Your task to perform on an android device: turn off notifications in google photos Image 0: 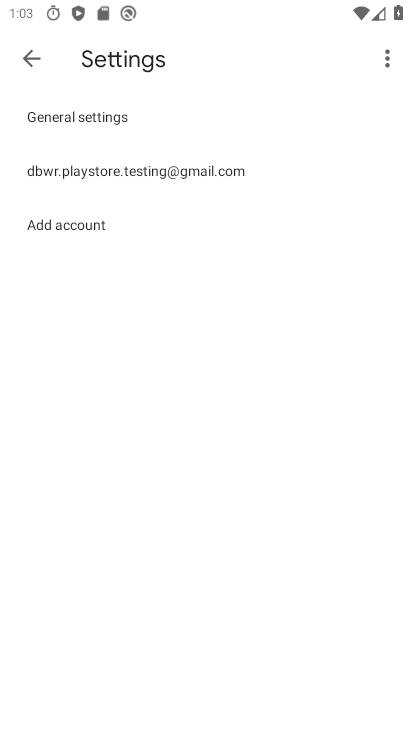
Step 0: press back button
Your task to perform on an android device: turn off notifications in google photos Image 1: 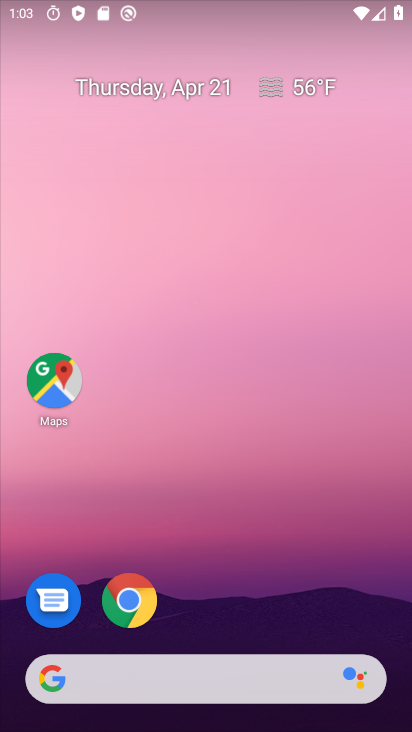
Step 1: drag from (378, 629) to (351, 227)
Your task to perform on an android device: turn off notifications in google photos Image 2: 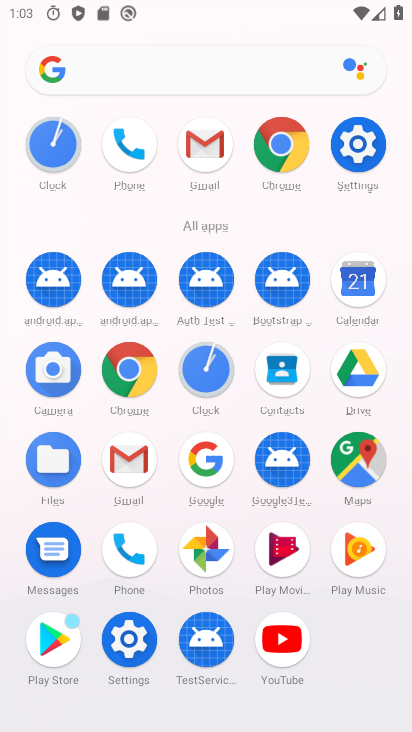
Step 2: click (192, 557)
Your task to perform on an android device: turn off notifications in google photos Image 3: 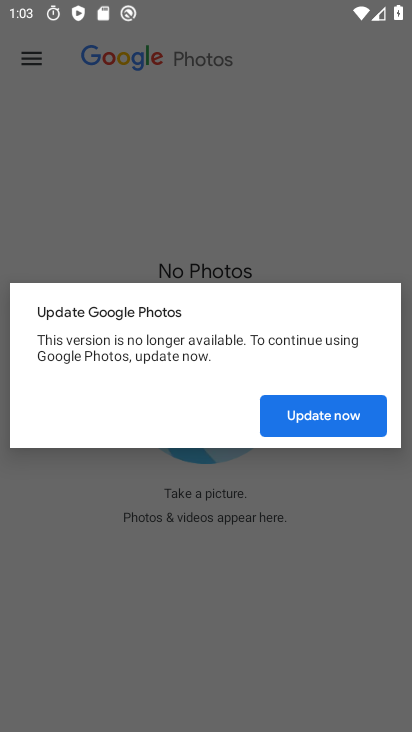
Step 3: click (322, 426)
Your task to perform on an android device: turn off notifications in google photos Image 4: 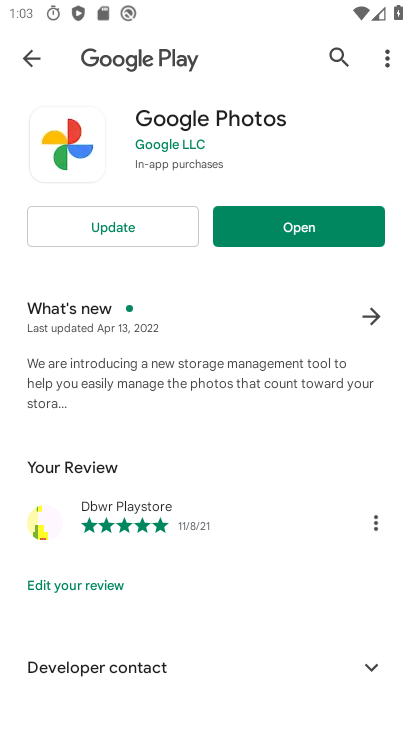
Step 4: click (148, 225)
Your task to perform on an android device: turn off notifications in google photos Image 5: 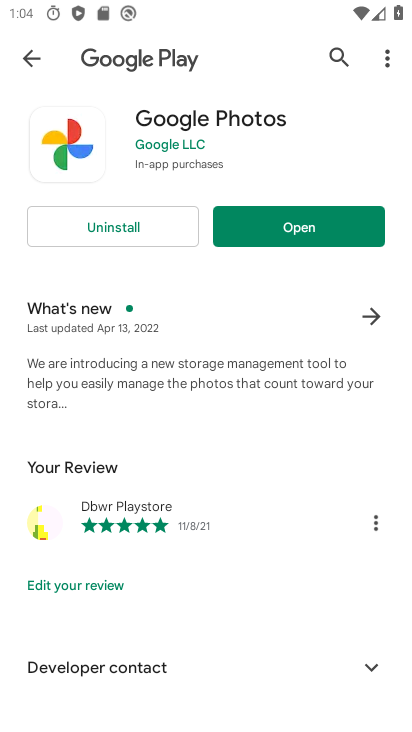
Step 5: click (260, 229)
Your task to perform on an android device: turn off notifications in google photos Image 6: 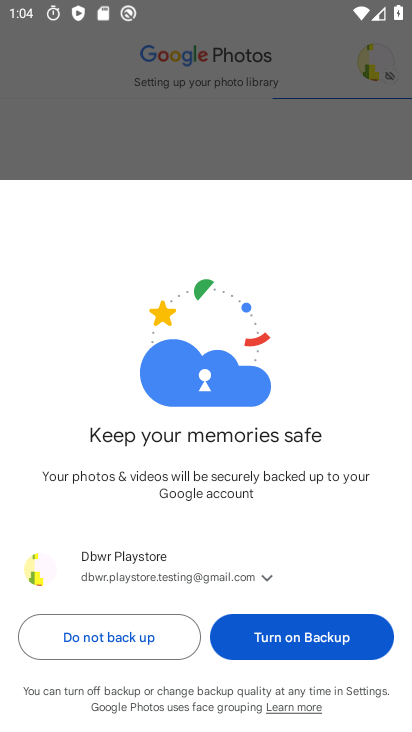
Step 6: press back button
Your task to perform on an android device: turn off notifications in google photos Image 7: 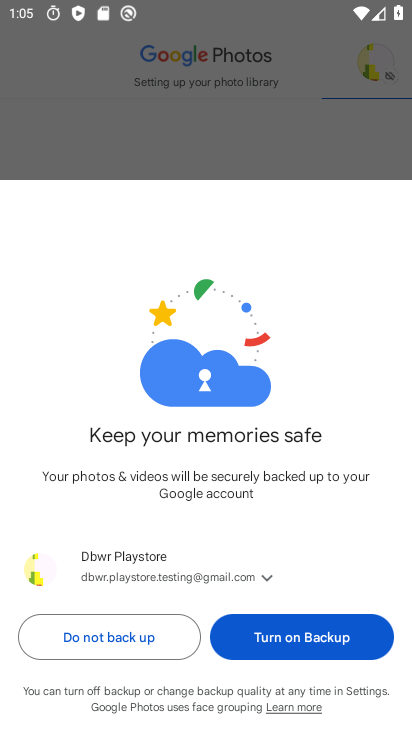
Step 7: click (263, 636)
Your task to perform on an android device: turn off notifications in google photos Image 8: 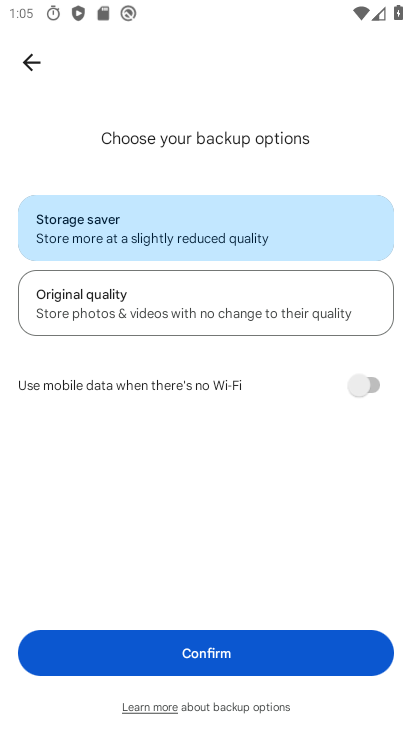
Step 8: click (24, 53)
Your task to perform on an android device: turn off notifications in google photos Image 9: 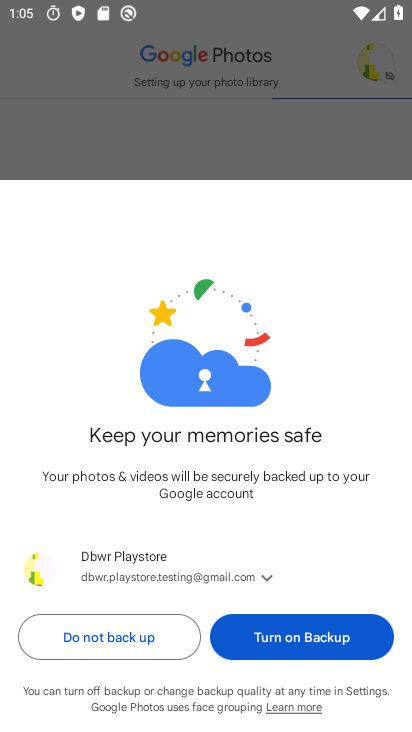
Step 9: click (166, 649)
Your task to perform on an android device: turn off notifications in google photos Image 10: 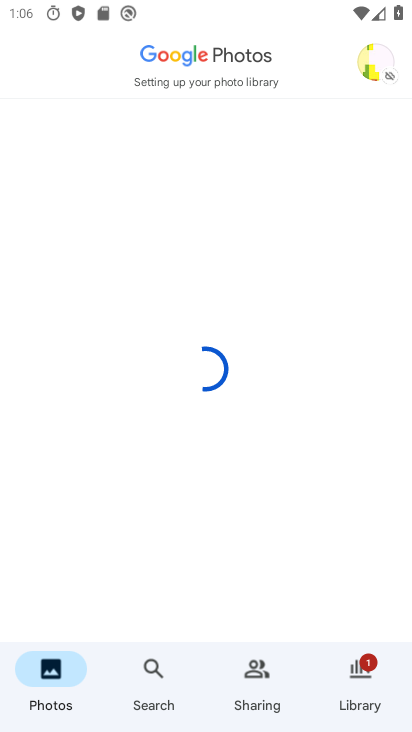
Step 10: task complete